Your task to perform on an android device: turn smart compose on in the gmail app Image 0: 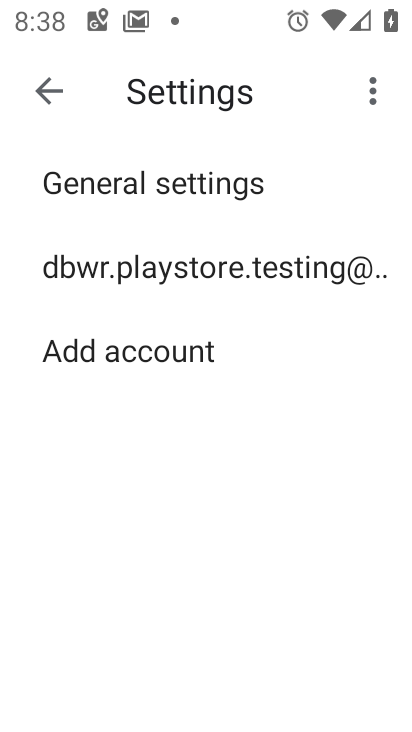
Step 0: press home button
Your task to perform on an android device: turn smart compose on in the gmail app Image 1: 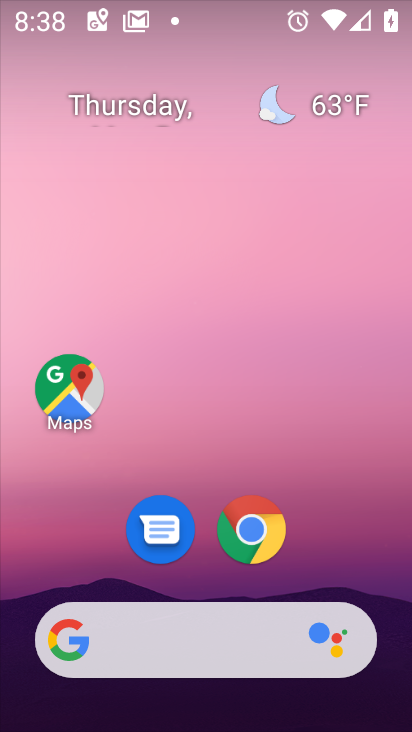
Step 1: drag from (209, 578) to (200, 148)
Your task to perform on an android device: turn smart compose on in the gmail app Image 2: 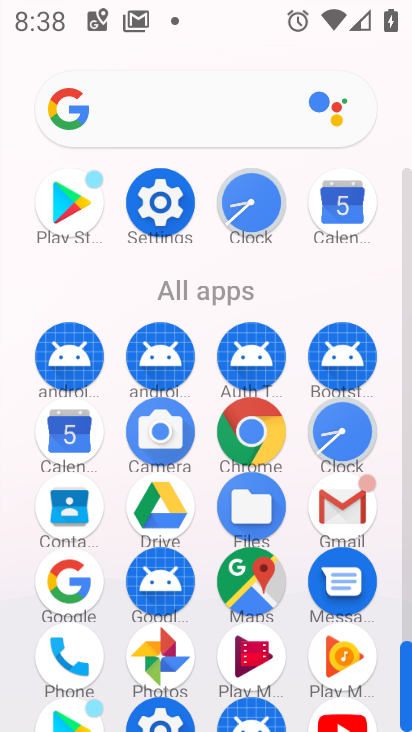
Step 2: click (342, 508)
Your task to perform on an android device: turn smart compose on in the gmail app Image 3: 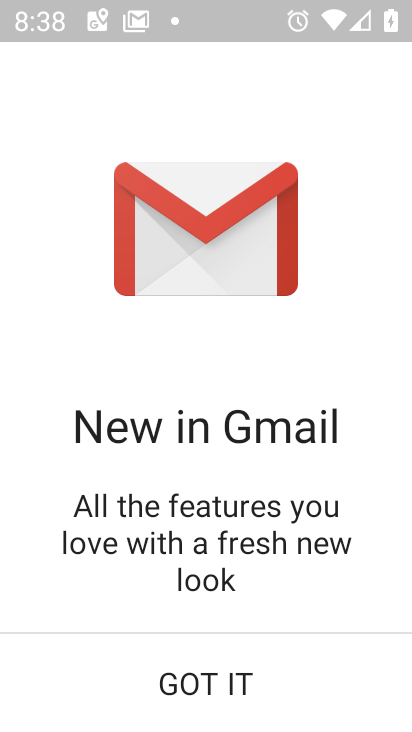
Step 3: click (287, 665)
Your task to perform on an android device: turn smart compose on in the gmail app Image 4: 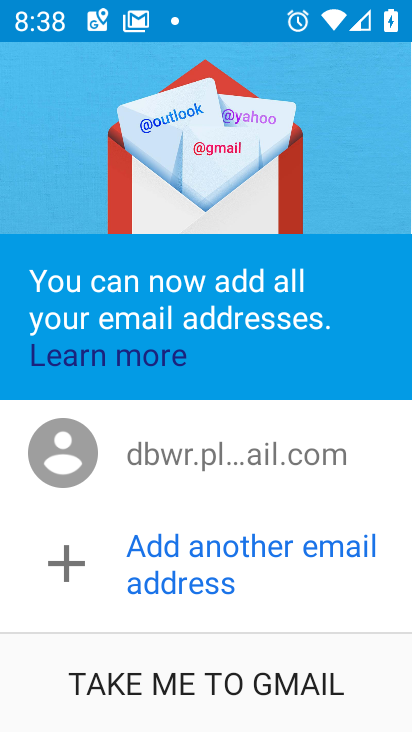
Step 4: click (193, 665)
Your task to perform on an android device: turn smart compose on in the gmail app Image 5: 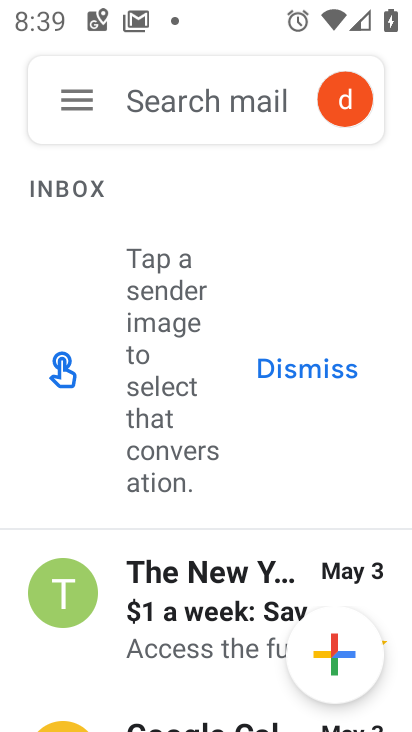
Step 5: click (79, 103)
Your task to perform on an android device: turn smart compose on in the gmail app Image 6: 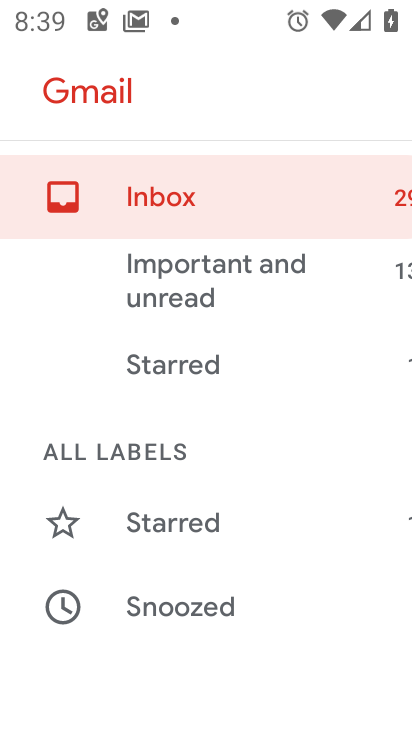
Step 6: drag from (220, 653) to (300, 121)
Your task to perform on an android device: turn smart compose on in the gmail app Image 7: 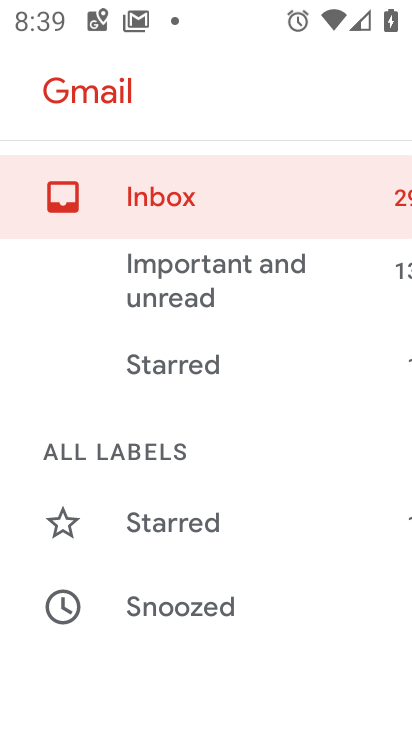
Step 7: drag from (221, 646) to (250, 229)
Your task to perform on an android device: turn smart compose on in the gmail app Image 8: 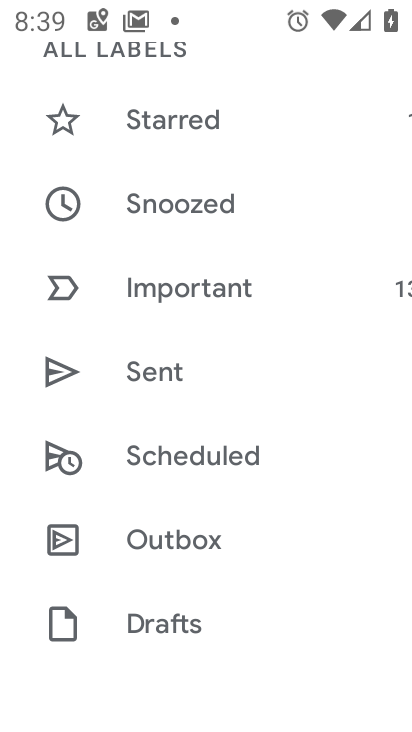
Step 8: drag from (216, 611) to (252, 268)
Your task to perform on an android device: turn smart compose on in the gmail app Image 9: 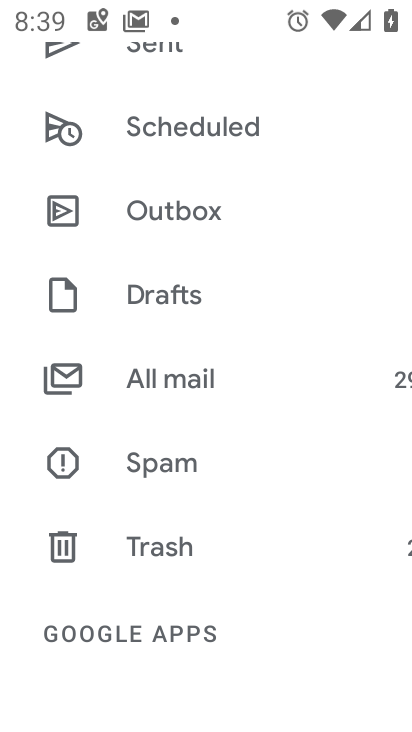
Step 9: drag from (210, 614) to (231, 305)
Your task to perform on an android device: turn smart compose on in the gmail app Image 10: 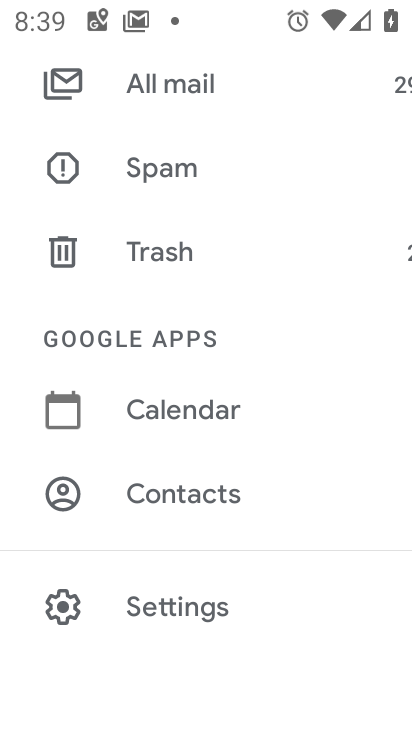
Step 10: click (203, 593)
Your task to perform on an android device: turn smart compose on in the gmail app Image 11: 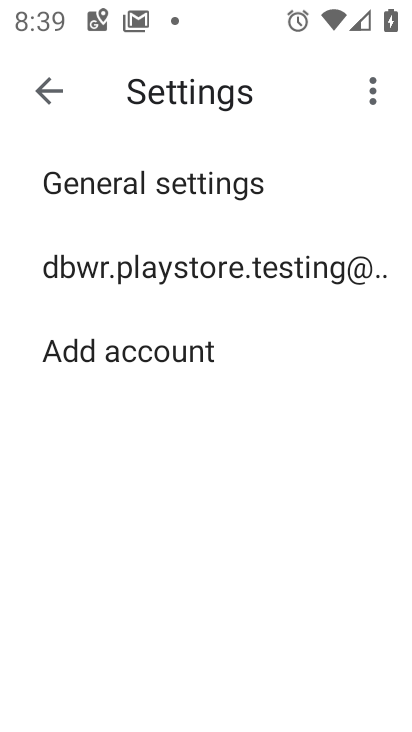
Step 11: click (221, 260)
Your task to perform on an android device: turn smart compose on in the gmail app Image 12: 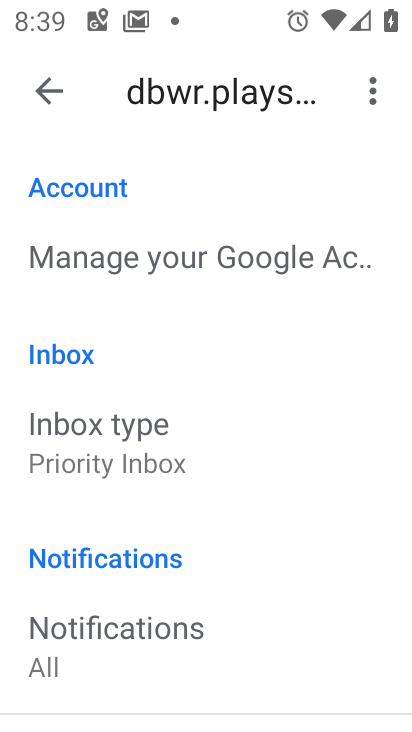
Step 12: task complete